Your task to perform on an android device: create a new album in the google photos Image 0: 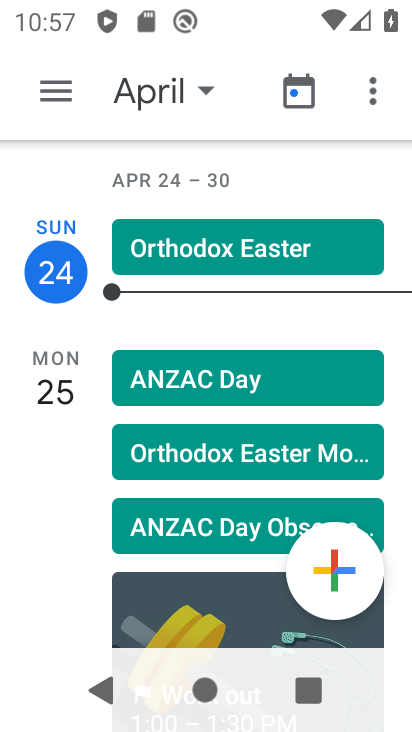
Step 0: press home button
Your task to perform on an android device: create a new album in the google photos Image 1: 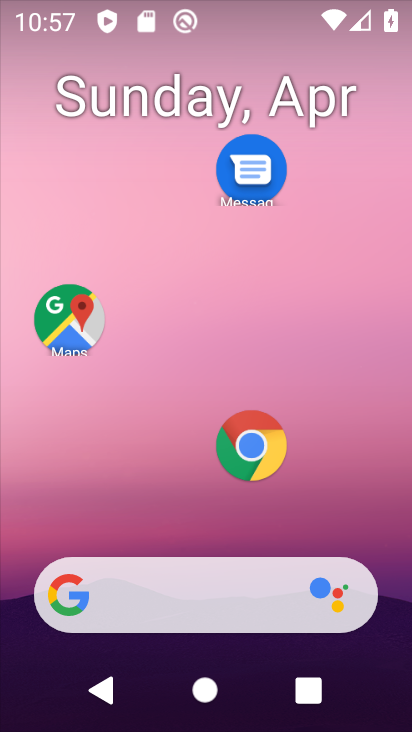
Step 1: drag from (180, 541) to (306, 119)
Your task to perform on an android device: create a new album in the google photos Image 2: 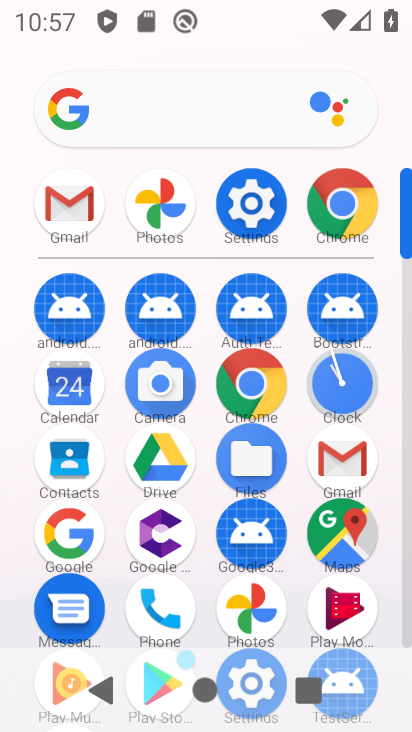
Step 2: click (163, 228)
Your task to perform on an android device: create a new album in the google photos Image 3: 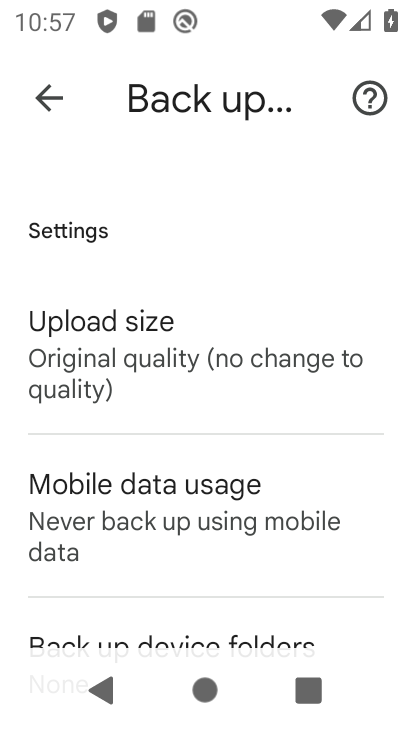
Step 3: click (41, 101)
Your task to perform on an android device: create a new album in the google photos Image 4: 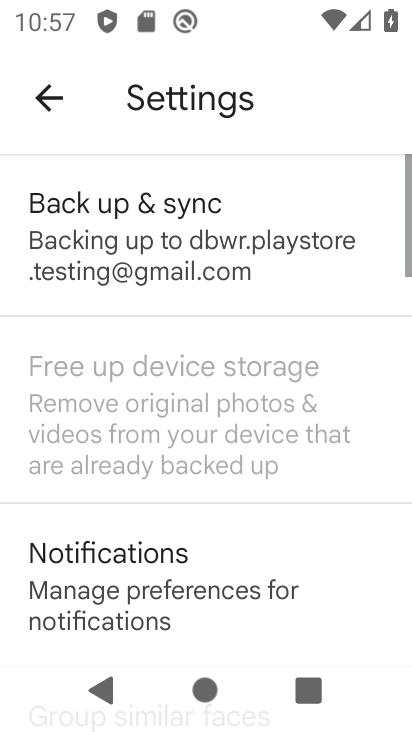
Step 4: click (41, 100)
Your task to perform on an android device: create a new album in the google photos Image 5: 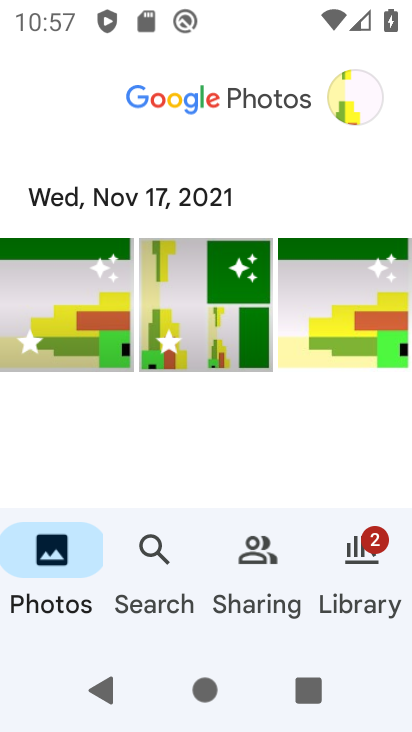
Step 5: click (339, 571)
Your task to perform on an android device: create a new album in the google photos Image 6: 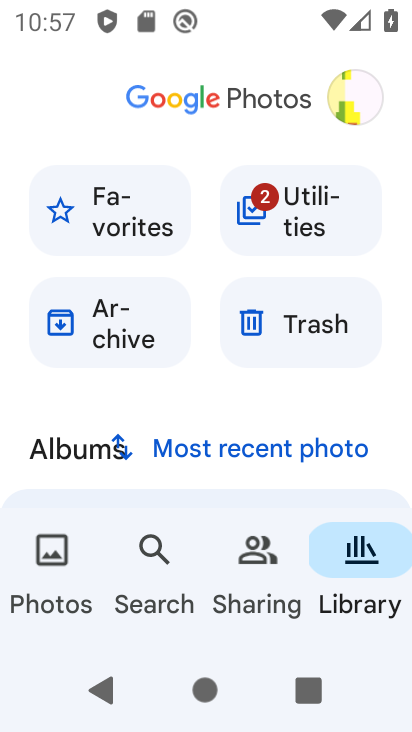
Step 6: drag from (99, 479) to (342, 50)
Your task to perform on an android device: create a new album in the google photos Image 7: 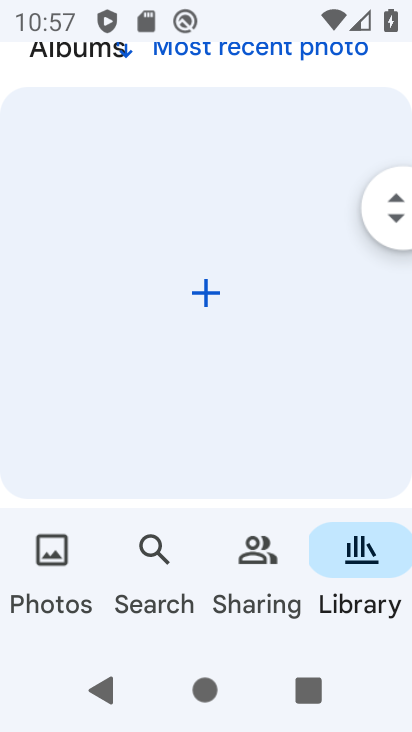
Step 7: click (206, 294)
Your task to perform on an android device: create a new album in the google photos Image 8: 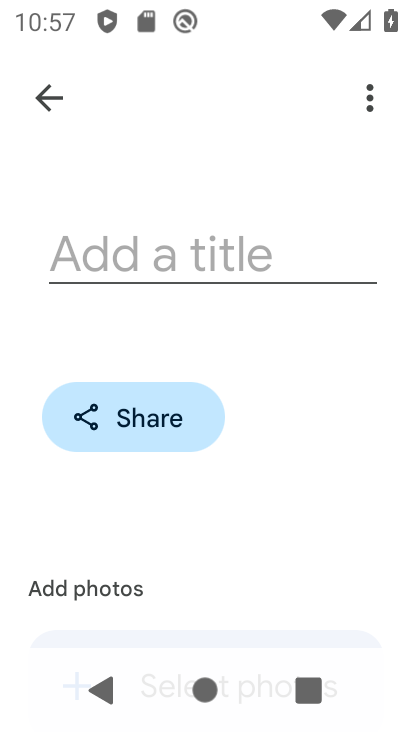
Step 8: click (99, 589)
Your task to perform on an android device: create a new album in the google photos Image 9: 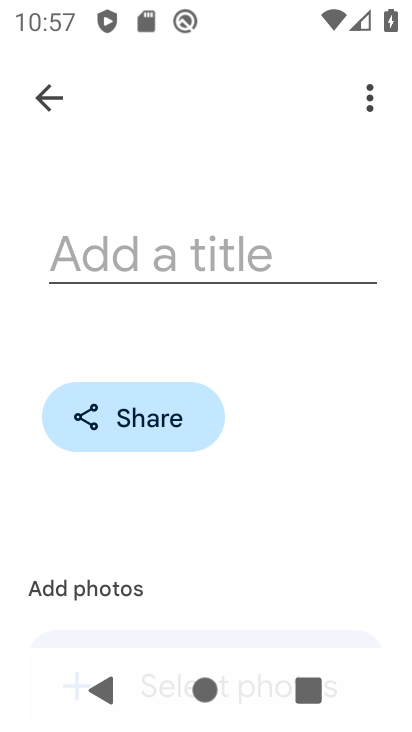
Step 9: drag from (172, 518) to (343, 153)
Your task to perform on an android device: create a new album in the google photos Image 10: 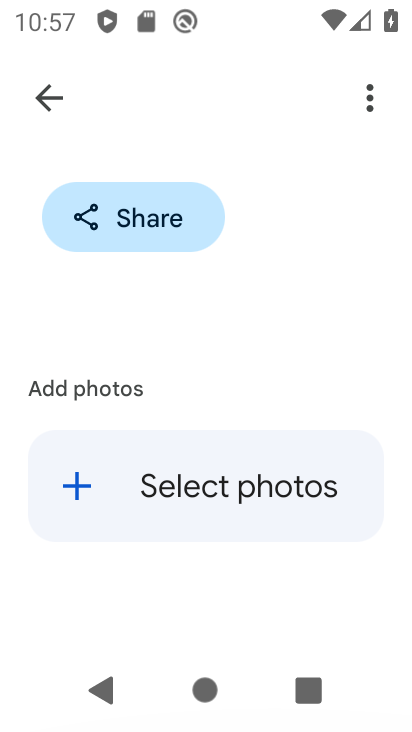
Step 10: click (191, 495)
Your task to perform on an android device: create a new album in the google photos Image 11: 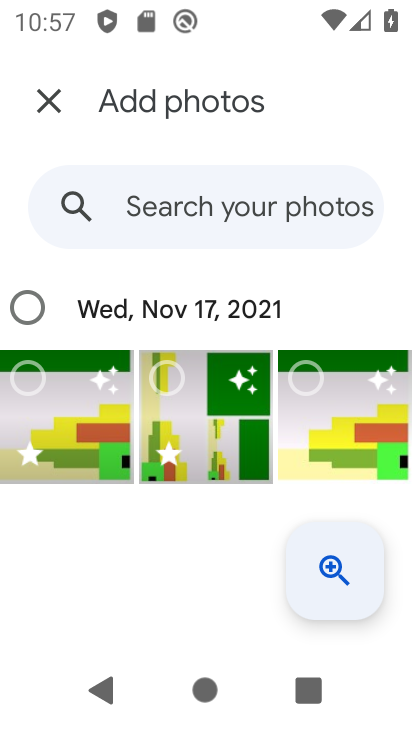
Step 11: click (41, 401)
Your task to perform on an android device: create a new album in the google photos Image 12: 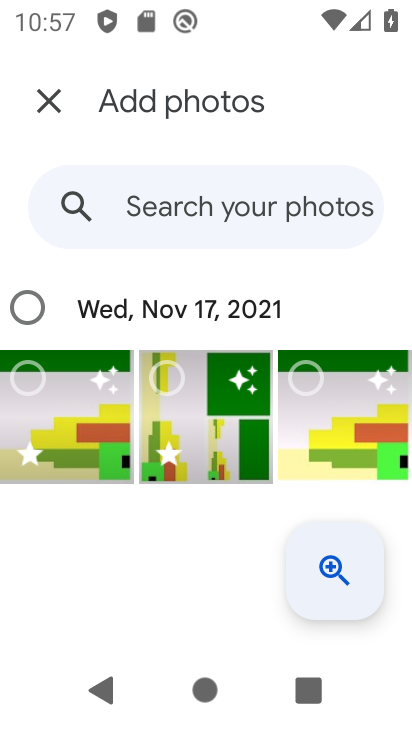
Step 12: drag from (191, 396) to (298, 403)
Your task to perform on an android device: create a new album in the google photos Image 13: 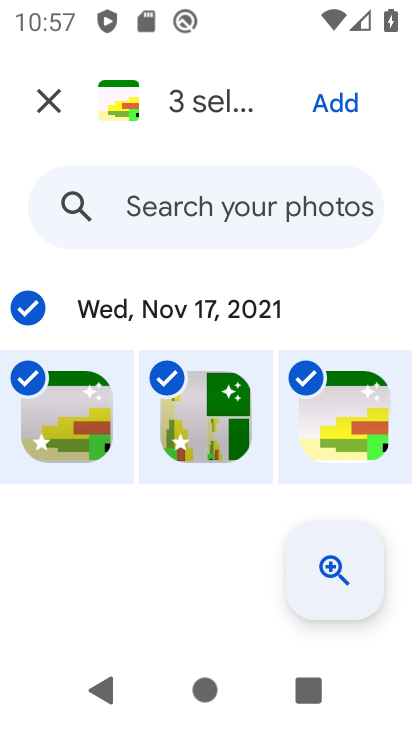
Step 13: click (338, 104)
Your task to perform on an android device: create a new album in the google photos Image 14: 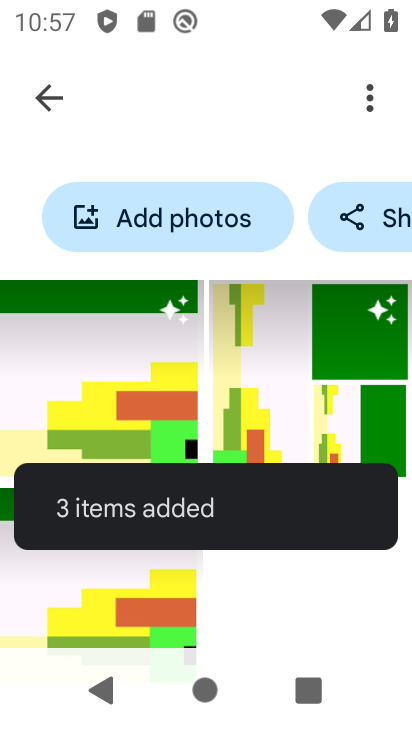
Step 14: task complete